Your task to perform on an android device: Go to wifi settings Image 0: 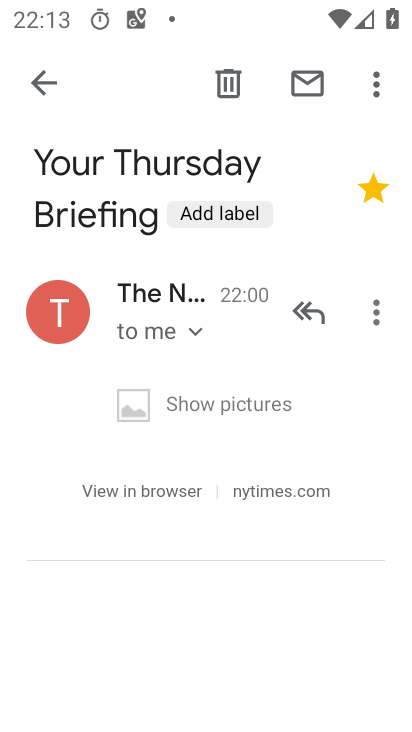
Step 0: press home button
Your task to perform on an android device: Go to wifi settings Image 1: 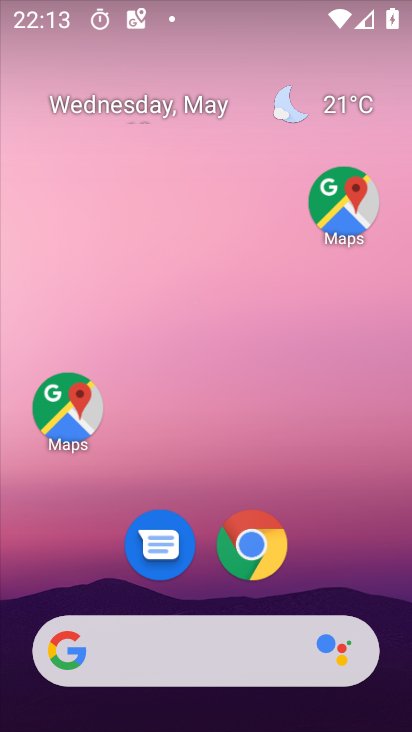
Step 1: drag from (336, 580) to (309, 151)
Your task to perform on an android device: Go to wifi settings Image 2: 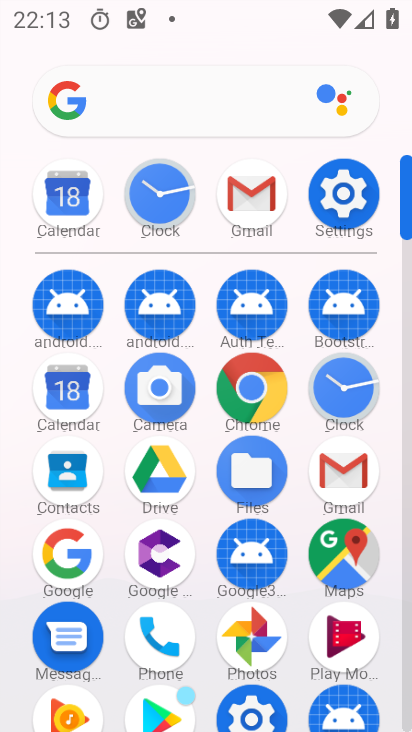
Step 2: click (339, 187)
Your task to perform on an android device: Go to wifi settings Image 3: 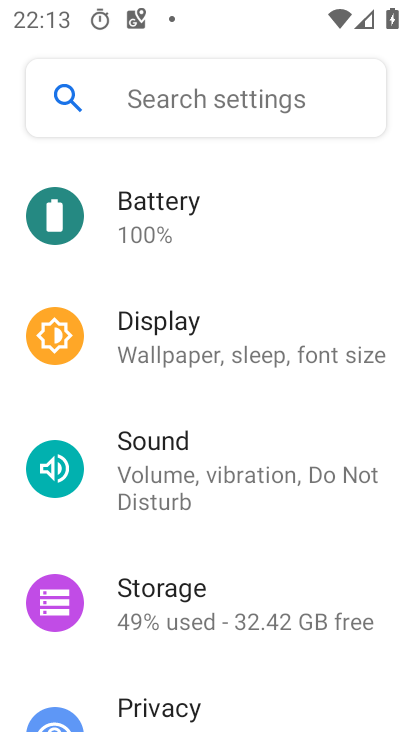
Step 3: drag from (219, 288) to (209, 418)
Your task to perform on an android device: Go to wifi settings Image 4: 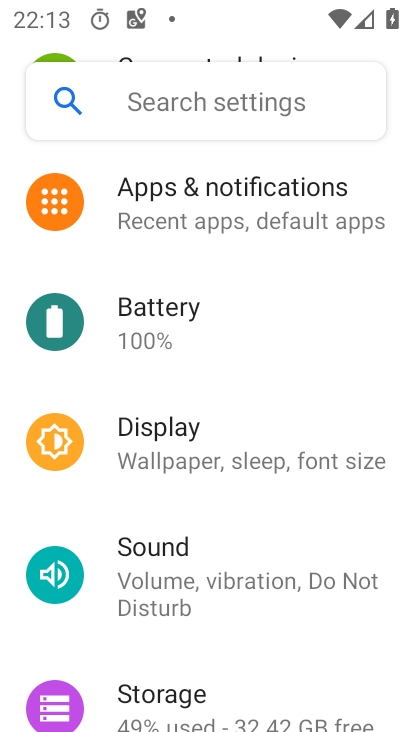
Step 4: drag from (183, 299) to (198, 428)
Your task to perform on an android device: Go to wifi settings Image 5: 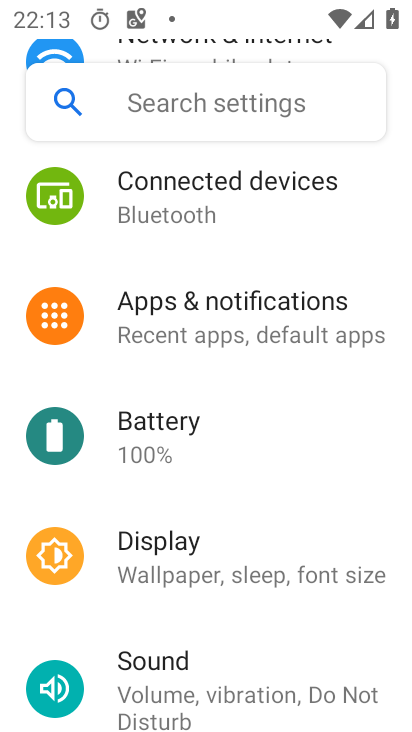
Step 5: drag from (188, 284) to (201, 430)
Your task to perform on an android device: Go to wifi settings Image 6: 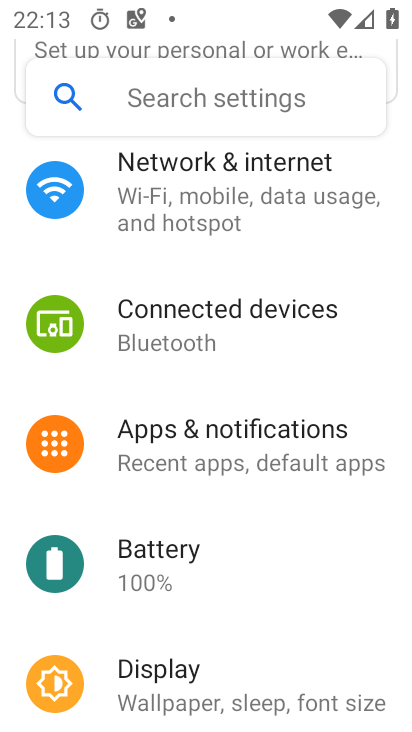
Step 6: click (193, 223)
Your task to perform on an android device: Go to wifi settings Image 7: 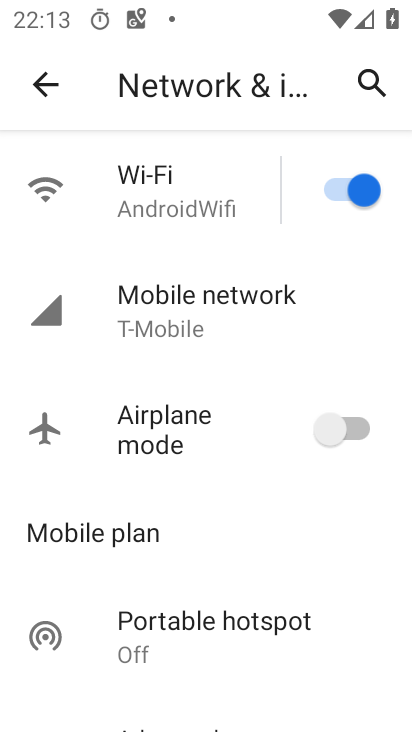
Step 7: click (114, 201)
Your task to perform on an android device: Go to wifi settings Image 8: 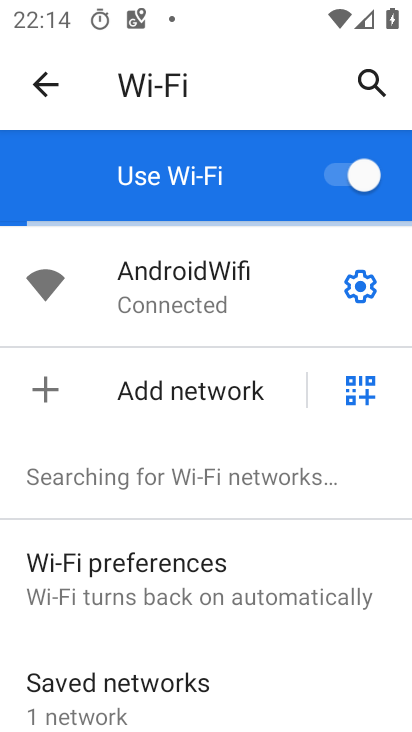
Step 8: task complete